Your task to perform on an android device: Open my contact list Image 0: 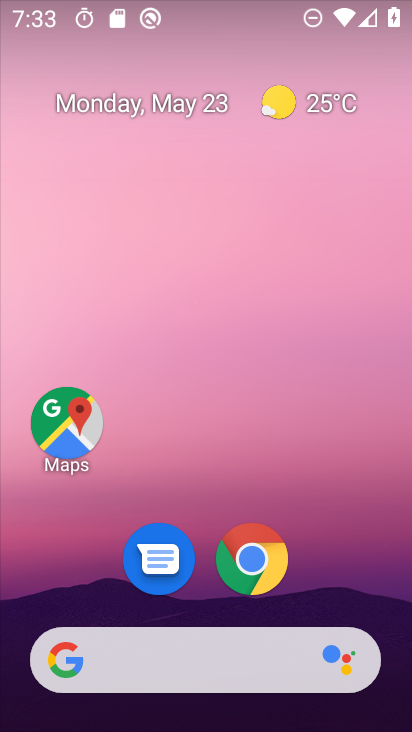
Step 0: drag from (394, 667) to (269, 42)
Your task to perform on an android device: Open my contact list Image 1: 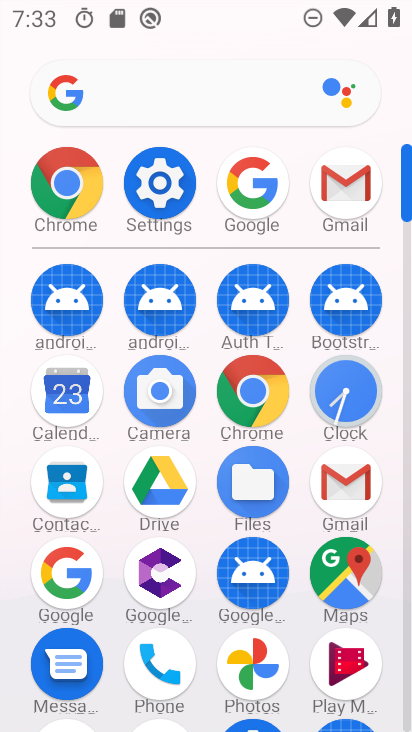
Step 1: click (63, 485)
Your task to perform on an android device: Open my contact list Image 2: 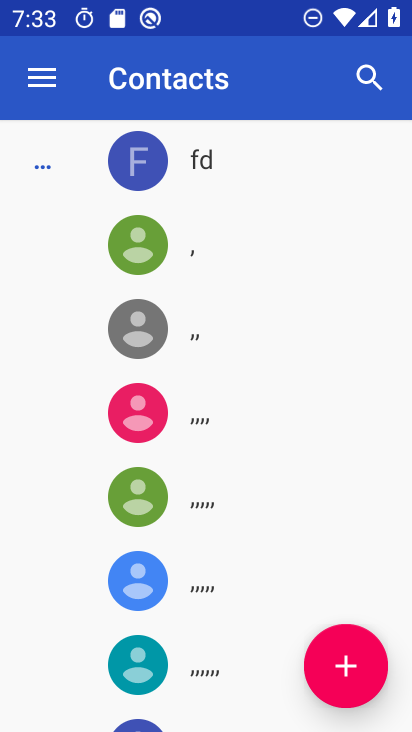
Step 2: task complete